Your task to perform on an android device: Open eBay Image 0: 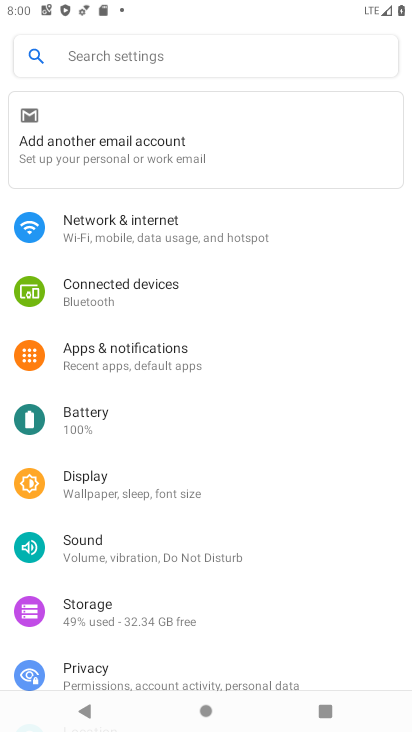
Step 0: press home button
Your task to perform on an android device: Open eBay Image 1: 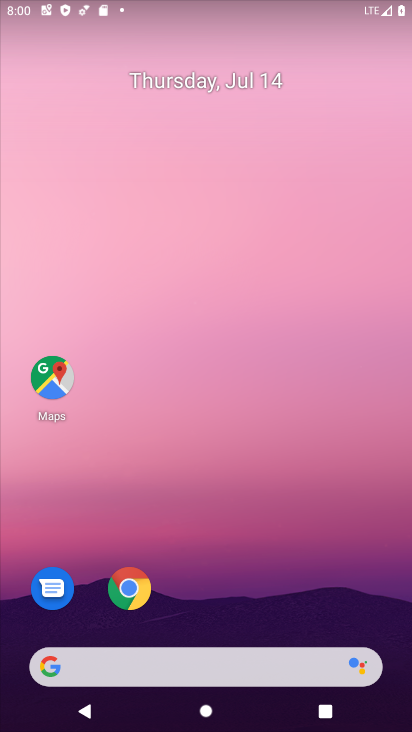
Step 1: drag from (384, 639) to (235, 25)
Your task to perform on an android device: Open eBay Image 2: 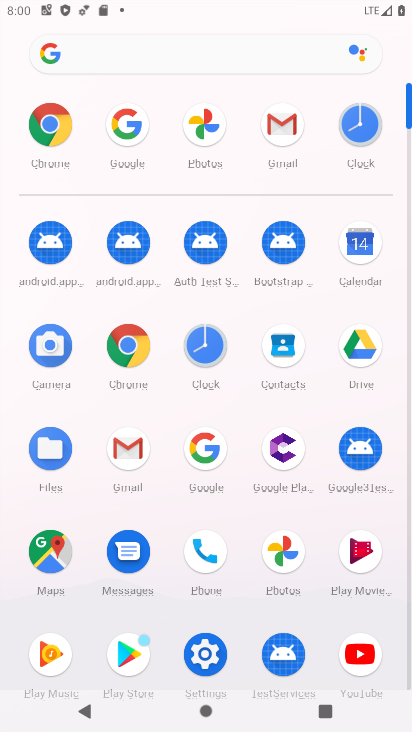
Step 2: click (196, 447)
Your task to perform on an android device: Open eBay Image 3: 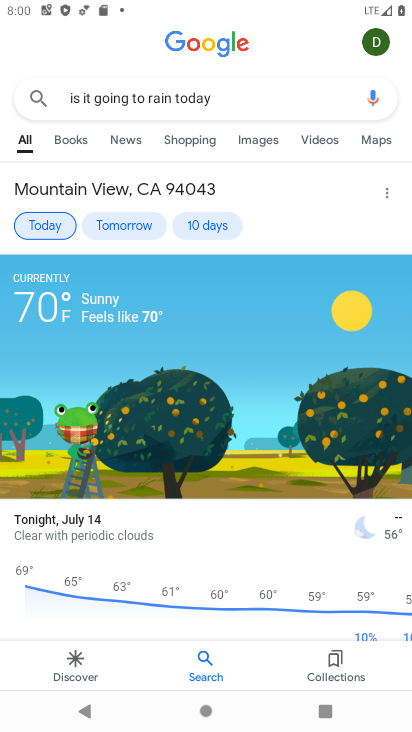
Step 3: press back button
Your task to perform on an android device: Open eBay Image 4: 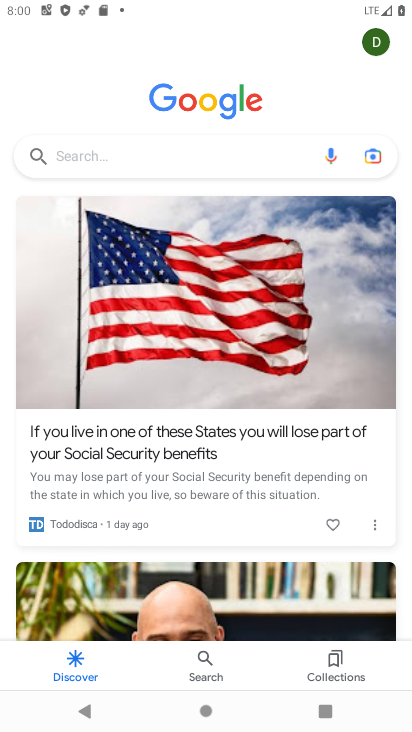
Step 4: click (85, 161)
Your task to perform on an android device: Open eBay Image 5: 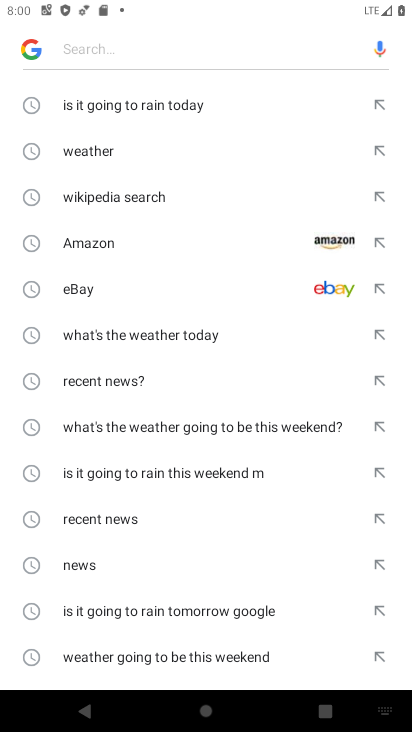
Step 5: click (103, 280)
Your task to perform on an android device: Open eBay Image 6: 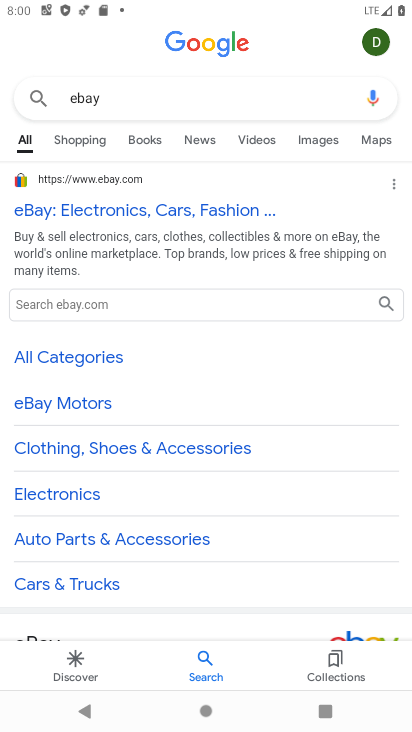
Step 6: task complete